Your task to perform on an android device: turn off airplane mode Image 0: 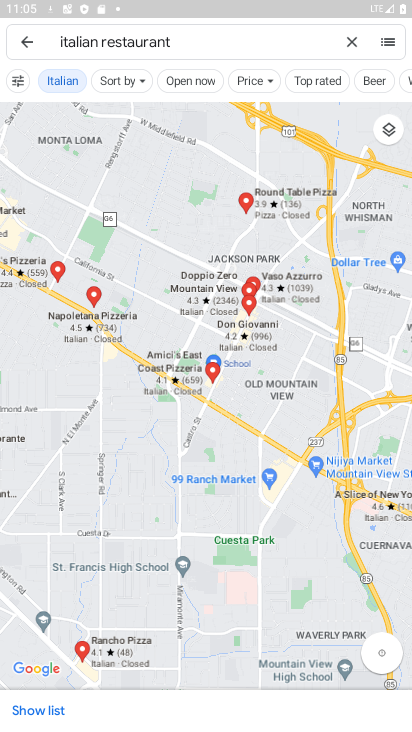
Step 0: press home button
Your task to perform on an android device: turn off airplane mode Image 1: 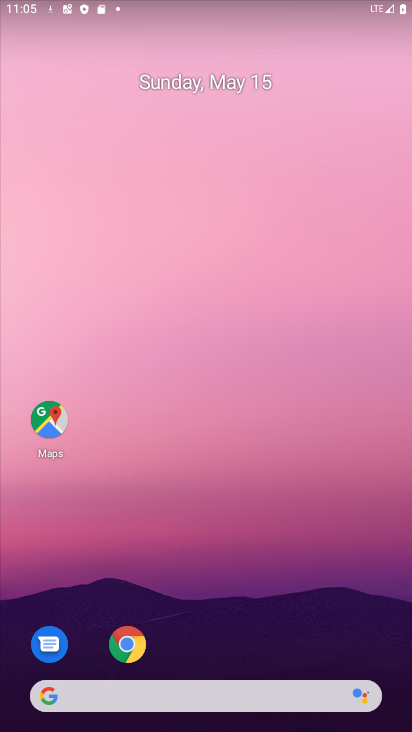
Step 1: drag from (213, 721) to (263, 336)
Your task to perform on an android device: turn off airplane mode Image 2: 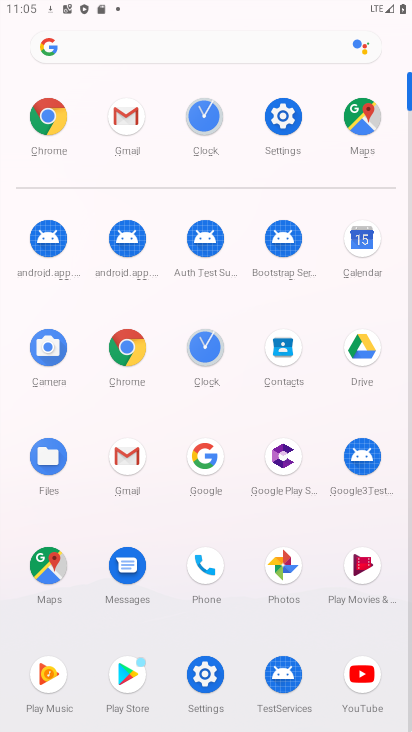
Step 2: click (280, 135)
Your task to perform on an android device: turn off airplane mode Image 3: 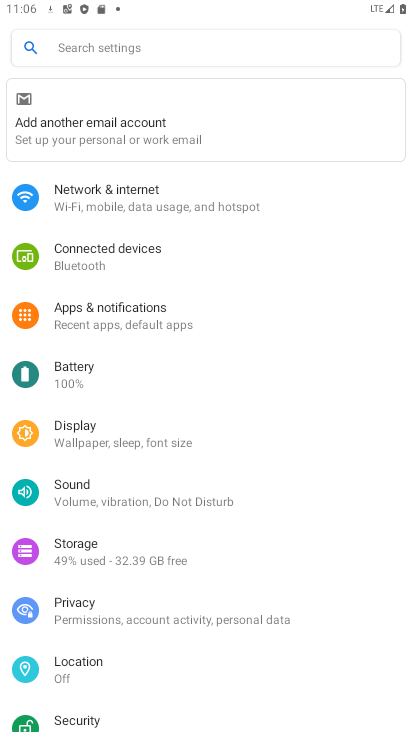
Step 3: click (120, 206)
Your task to perform on an android device: turn off airplane mode Image 4: 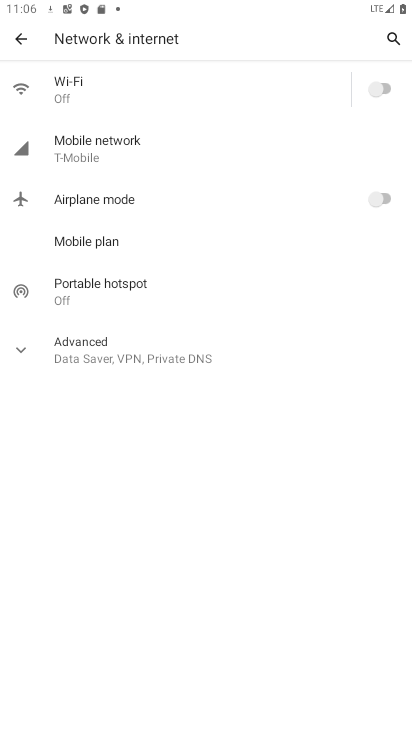
Step 4: click (338, 210)
Your task to perform on an android device: turn off airplane mode Image 5: 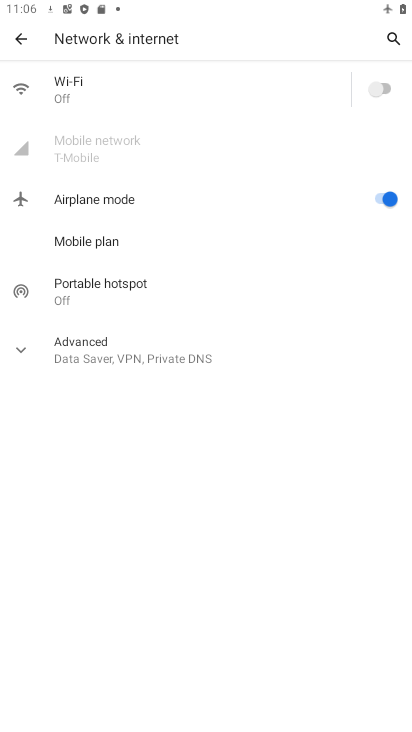
Step 5: click (354, 204)
Your task to perform on an android device: turn off airplane mode Image 6: 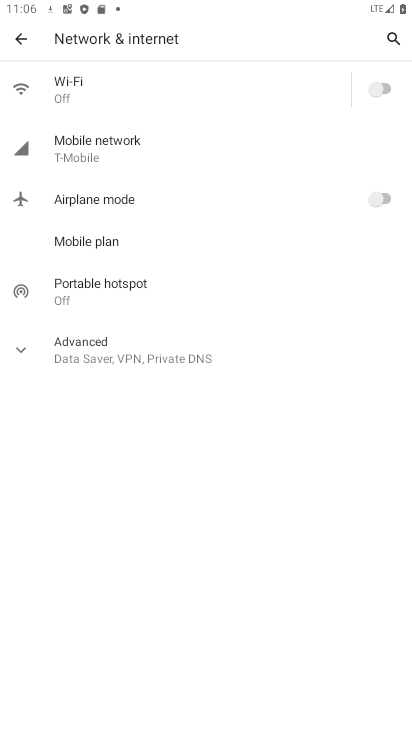
Step 6: task complete